Your task to perform on an android device: Open calendar and show me the first week of next month Image 0: 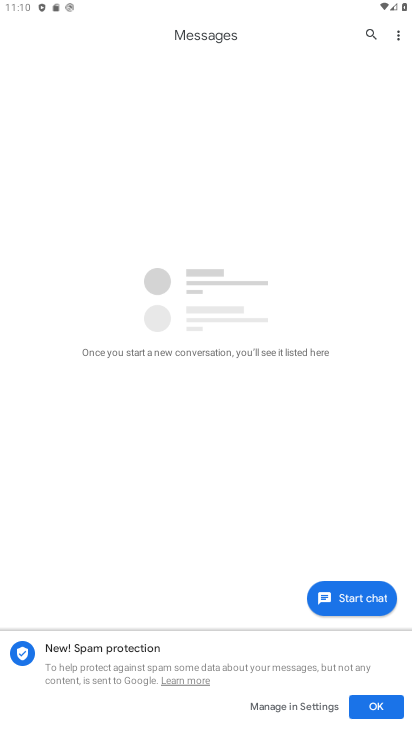
Step 0: press home button
Your task to perform on an android device: Open calendar and show me the first week of next month Image 1: 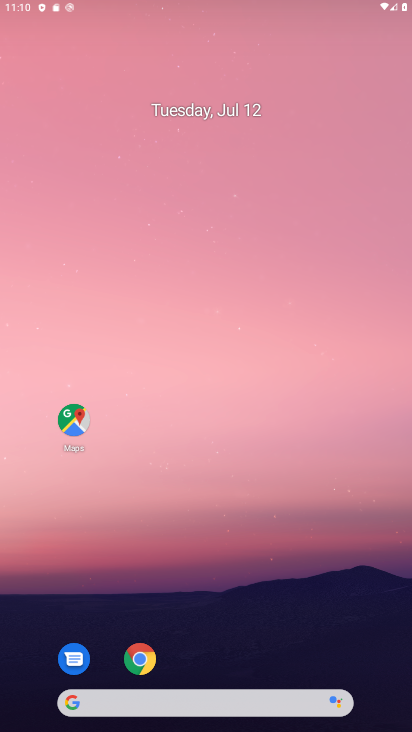
Step 1: drag from (189, 627) to (251, 92)
Your task to perform on an android device: Open calendar and show me the first week of next month Image 2: 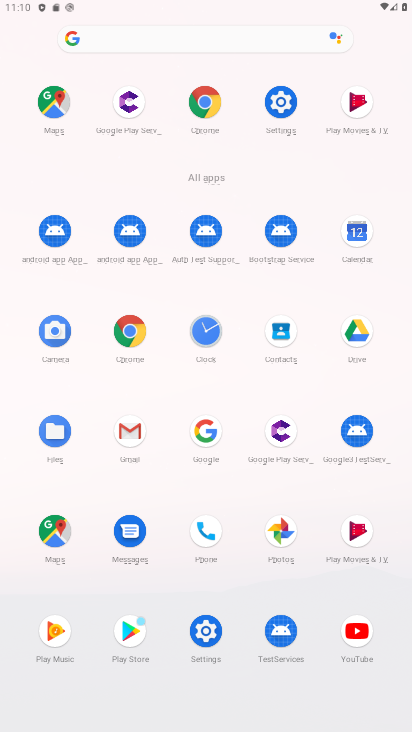
Step 2: click (367, 229)
Your task to perform on an android device: Open calendar and show me the first week of next month Image 3: 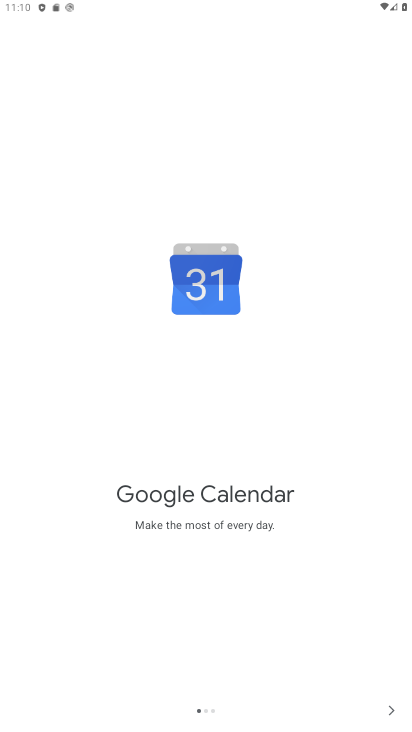
Step 3: click (384, 705)
Your task to perform on an android device: Open calendar and show me the first week of next month Image 4: 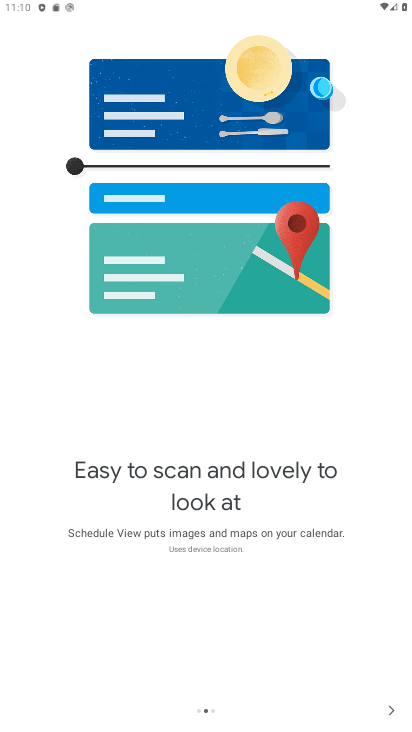
Step 4: click (391, 707)
Your task to perform on an android device: Open calendar and show me the first week of next month Image 5: 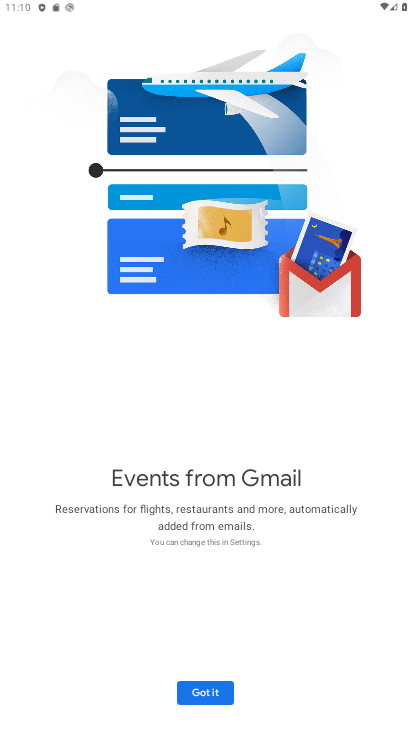
Step 5: click (223, 689)
Your task to perform on an android device: Open calendar and show me the first week of next month Image 6: 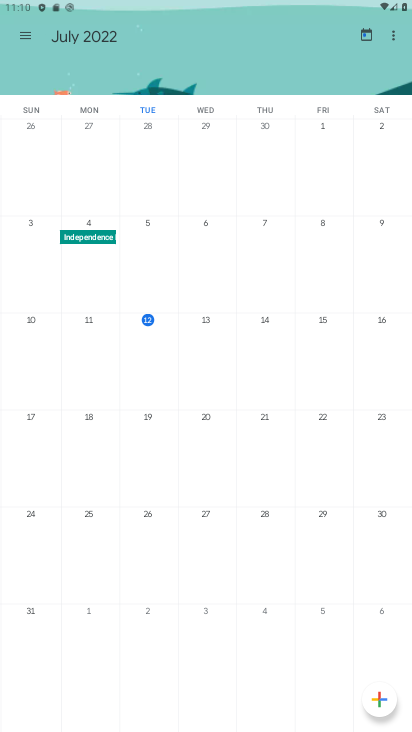
Step 6: drag from (382, 334) to (49, 421)
Your task to perform on an android device: Open calendar and show me the first week of next month Image 7: 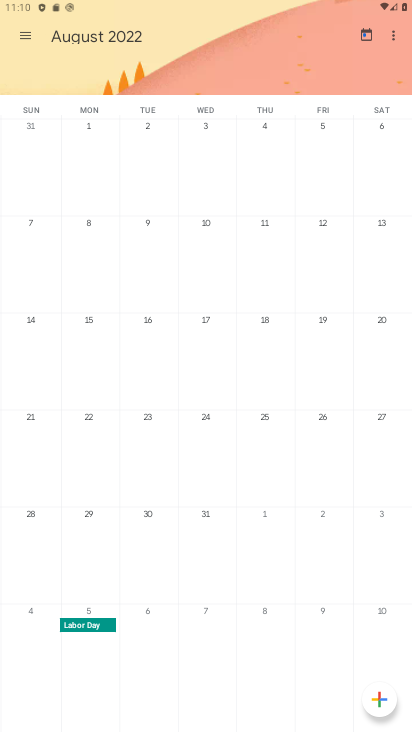
Step 7: click (213, 130)
Your task to perform on an android device: Open calendar and show me the first week of next month Image 8: 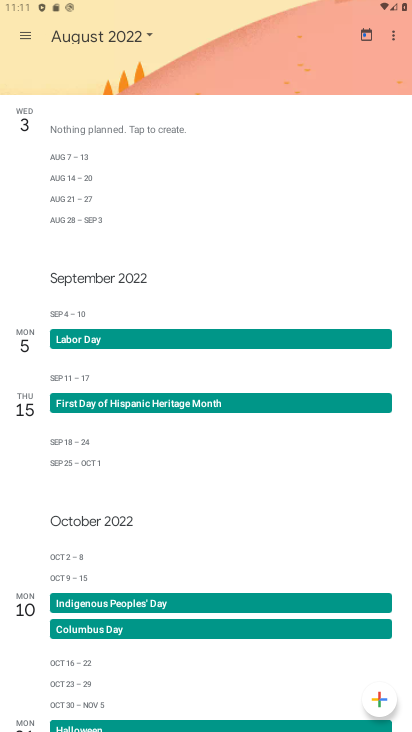
Step 8: click (21, 33)
Your task to perform on an android device: Open calendar and show me the first week of next month Image 9: 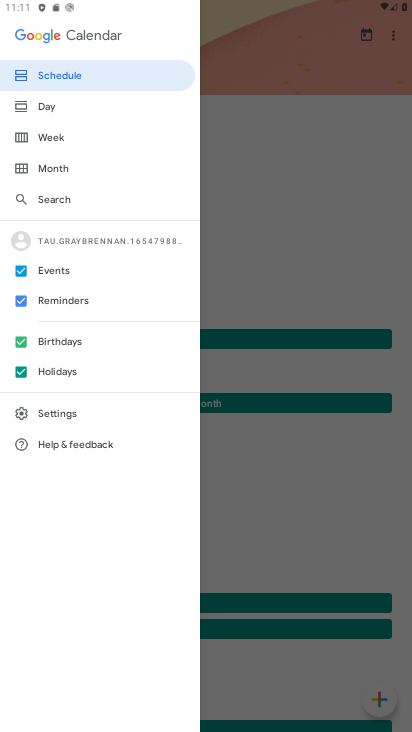
Step 9: click (52, 130)
Your task to perform on an android device: Open calendar and show me the first week of next month Image 10: 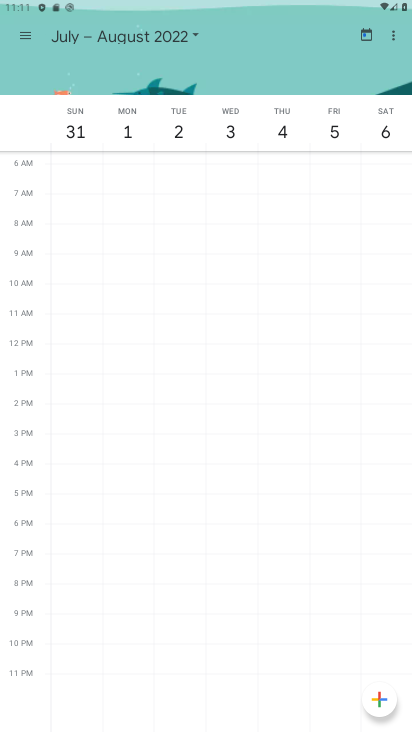
Step 10: task complete